Your task to perform on an android device: turn on location history Image 0: 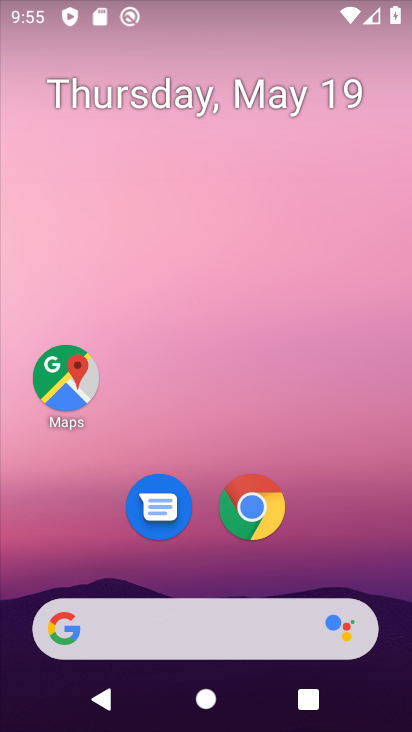
Step 0: drag from (393, 676) to (370, 223)
Your task to perform on an android device: turn on location history Image 1: 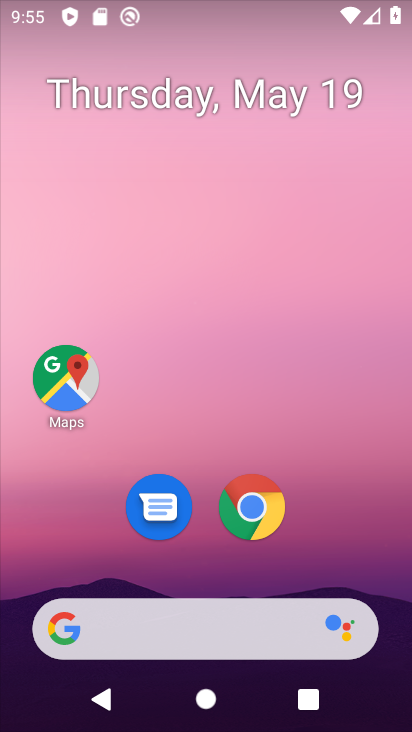
Step 1: drag from (383, 653) to (343, 108)
Your task to perform on an android device: turn on location history Image 2: 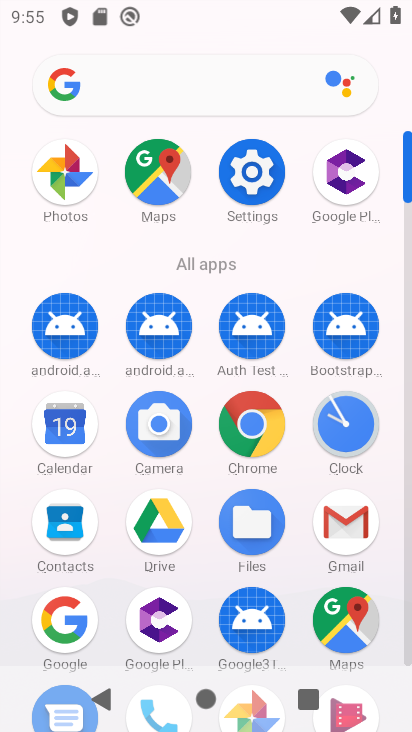
Step 2: click (239, 179)
Your task to perform on an android device: turn on location history Image 3: 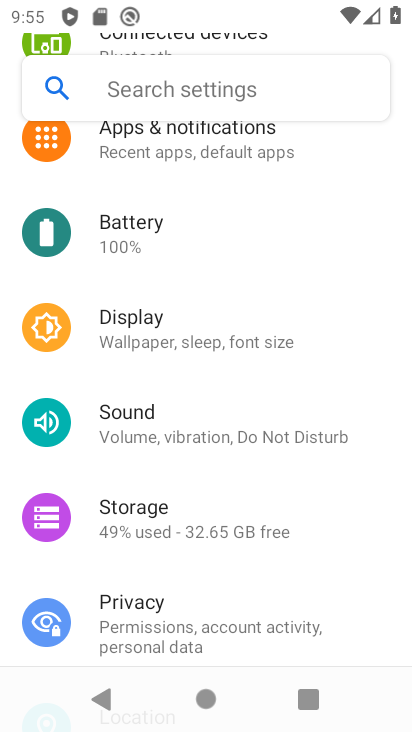
Step 3: click (169, 329)
Your task to perform on an android device: turn on location history Image 4: 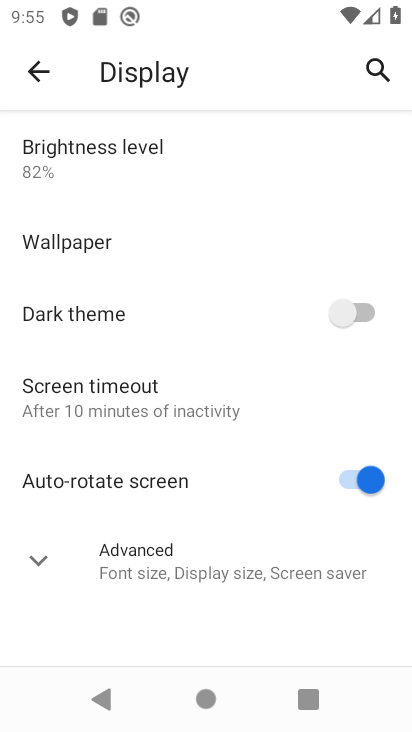
Step 4: click (44, 557)
Your task to perform on an android device: turn on location history Image 5: 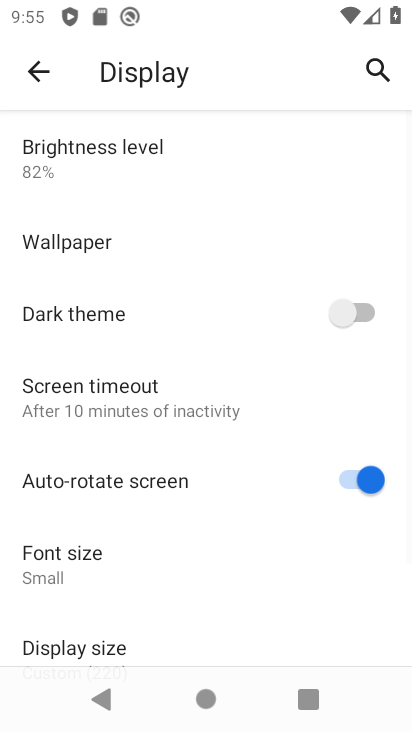
Step 5: click (57, 565)
Your task to perform on an android device: turn on location history Image 6: 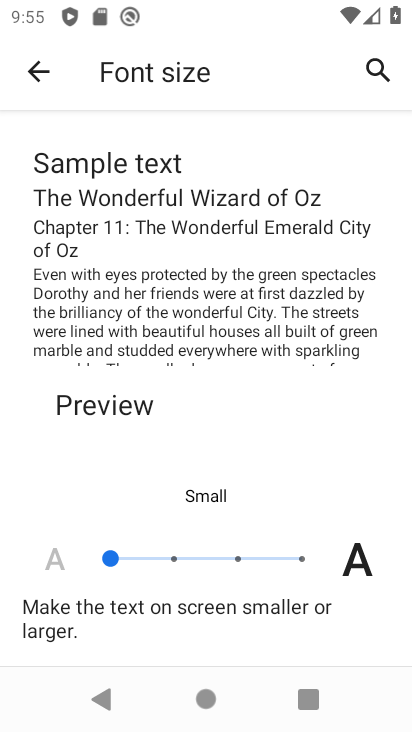
Step 6: click (41, 70)
Your task to perform on an android device: turn on location history Image 7: 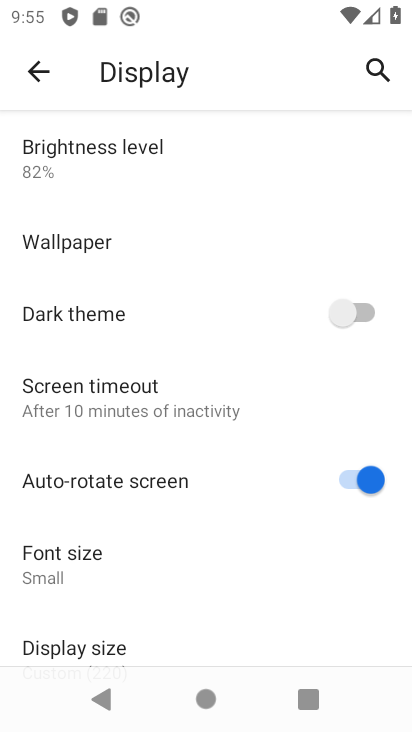
Step 7: click (36, 65)
Your task to perform on an android device: turn on location history Image 8: 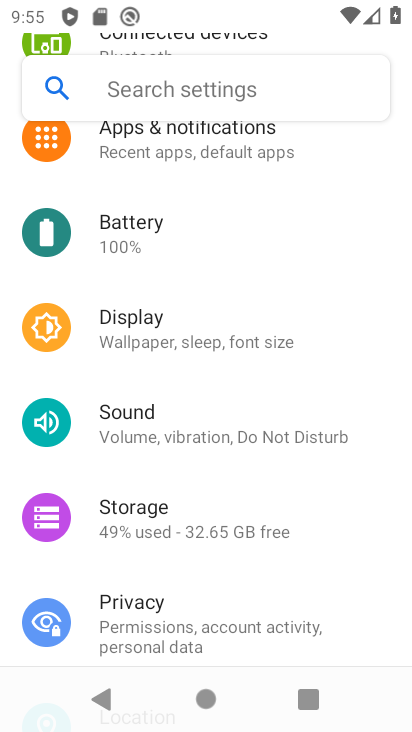
Step 8: drag from (340, 600) to (352, 259)
Your task to perform on an android device: turn on location history Image 9: 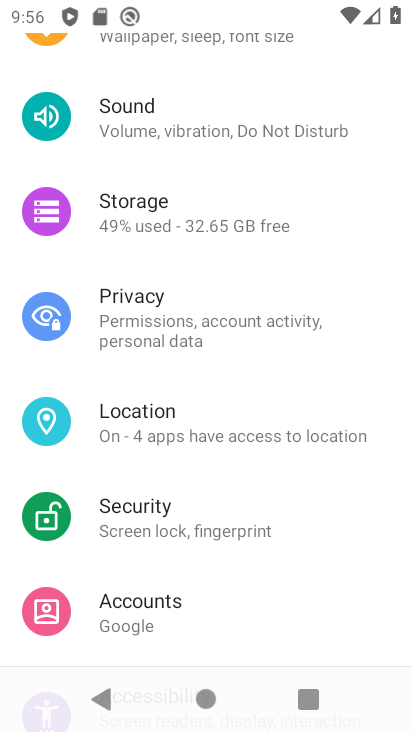
Step 9: click (139, 421)
Your task to perform on an android device: turn on location history Image 10: 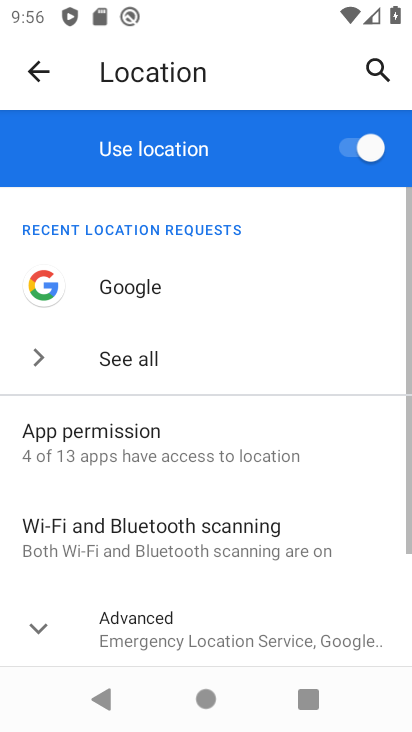
Step 10: drag from (291, 601) to (286, 372)
Your task to perform on an android device: turn on location history Image 11: 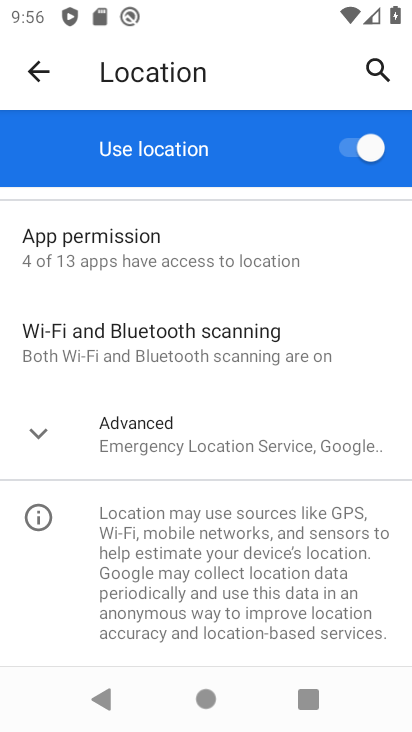
Step 11: click (46, 435)
Your task to perform on an android device: turn on location history Image 12: 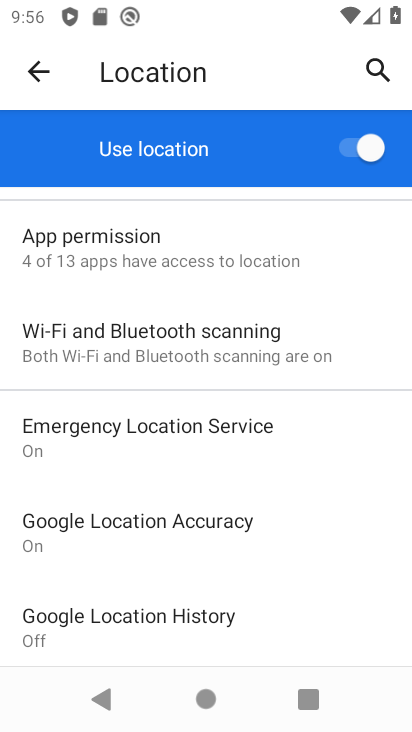
Step 12: drag from (210, 605) to (215, 383)
Your task to perform on an android device: turn on location history Image 13: 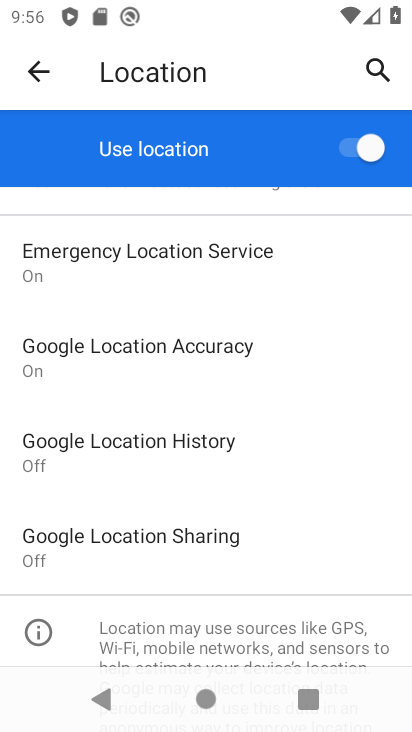
Step 13: click (48, 475)
Your task to perform on an android device: turn on location history Image 14: 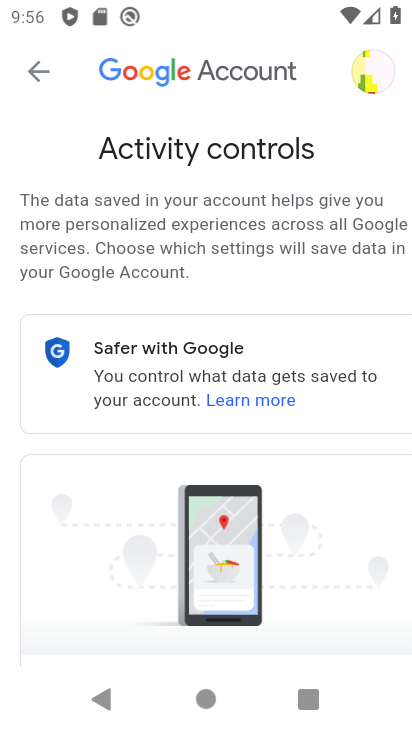
Step 14: drag from (334, 600) to (303, 442)
Your task to perform on an android device: turn on location history Image 15: 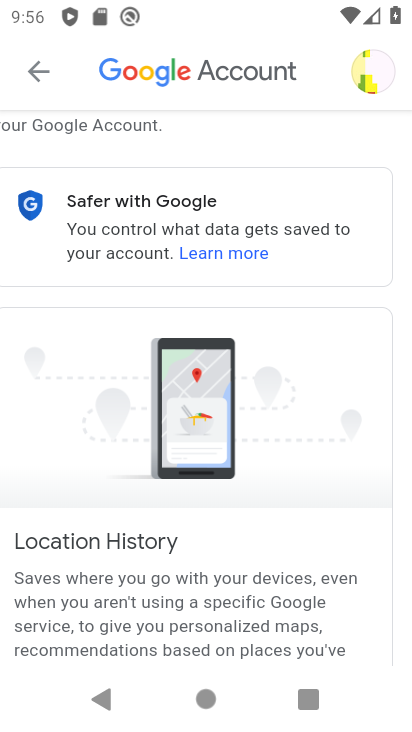
Step 15: drag from (289, 608) to (302, 326)
Your task to perform on an android device: turn on location history Image 16: 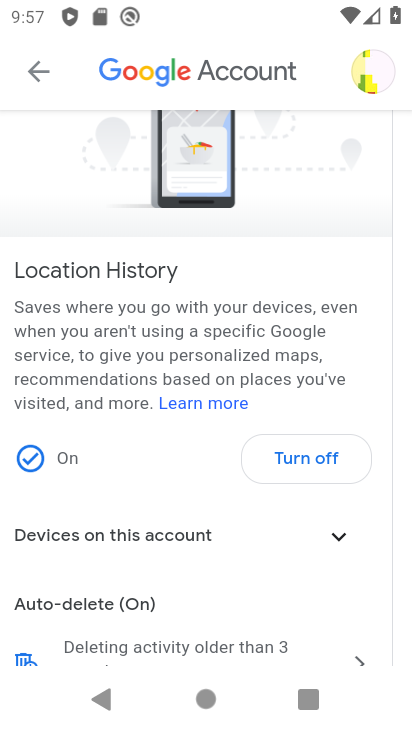
Step 16: click (308, 463)
Your task to perform on an android device: turn on location history Image 17: 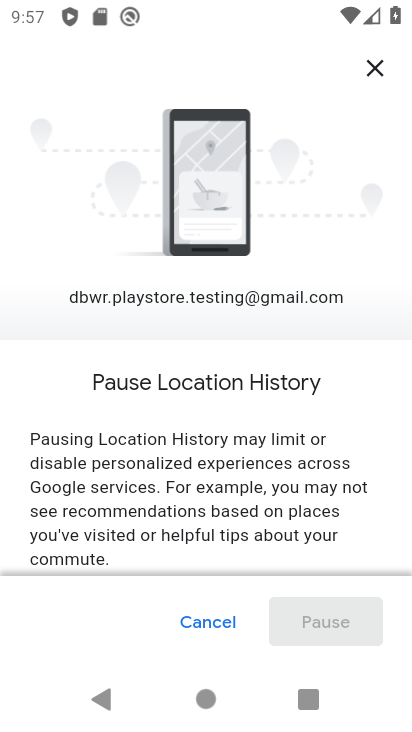
Step 17: drag from (274, 518) to (270, 296)
Your task to perform on an android device: turn on location history Image 18: 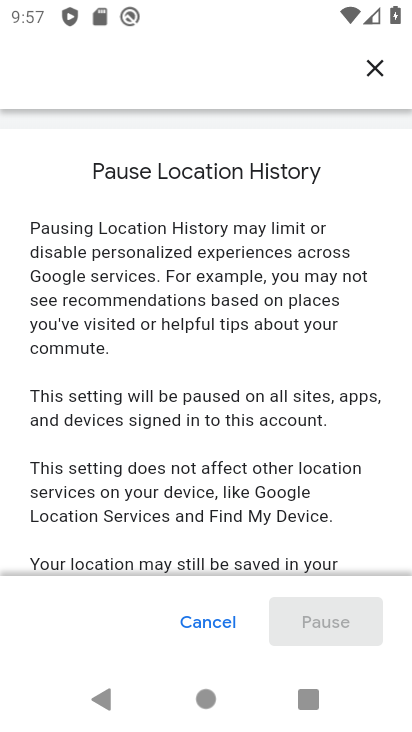
Step 18: drag from (264, 459) to (276, 329)
Your task to perform on an android device: turn on location history Image 19: 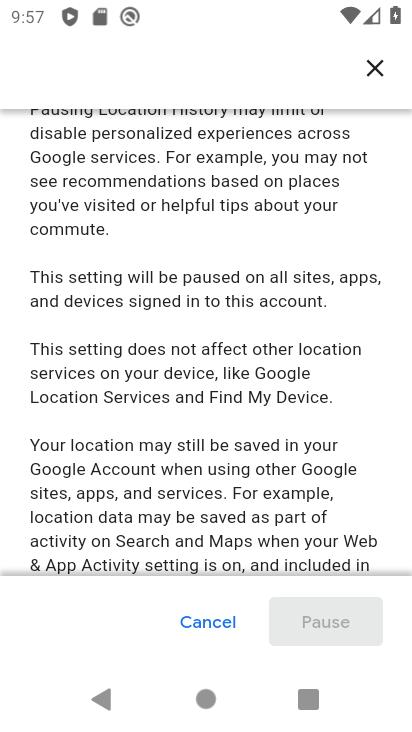
Step 19: drag from (259, 325) to (268, 266)
Your task to perform on an android device: turn on location history Image 20: 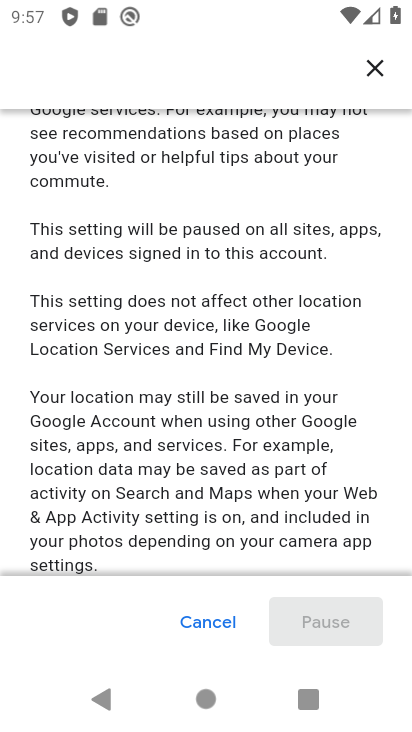
Step 20: click (303, 330)
Your task to perform on an android device: turn on location history Image 21: 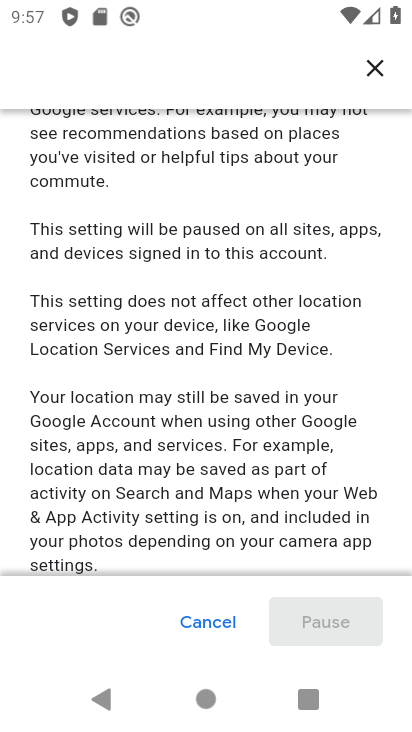
Step 21: drag from (248, 503) to (257, 253)
Your task to perform on an android device: turn on location history Image 22: 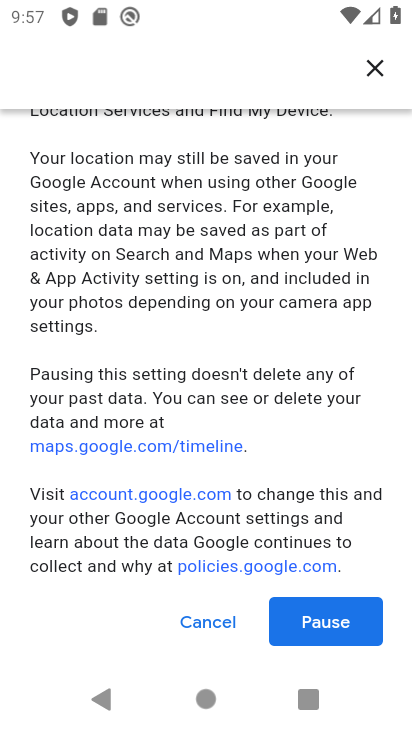
Step 22: click (315, 613)
Your task to perform on an android device: turn on location history Image 23: 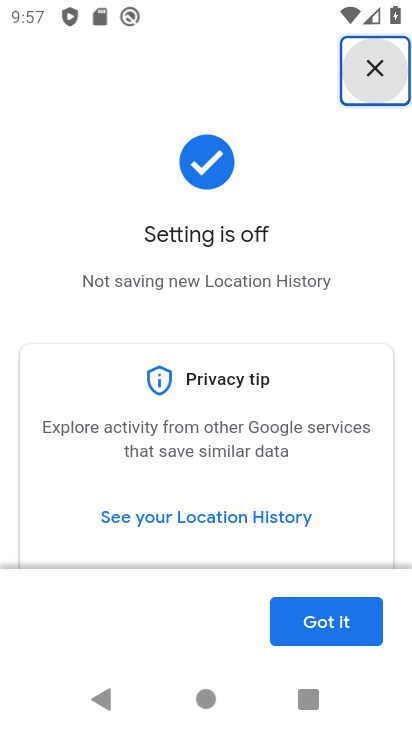
Step 23: click (323, 629)
Your task to perform on an android device: turn on location history Image 24: 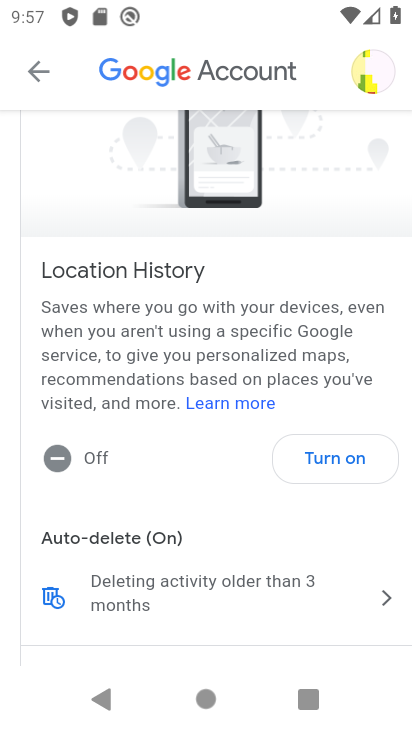
Step 24: task complete